Your task to perform on an android device: change the upload size in google photos Image 0: 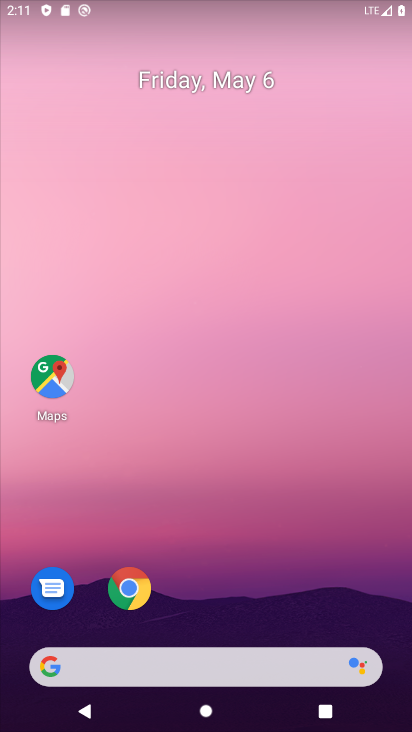
Step 0: drag from (319, 577) to (390, 60)
Your task to perform on an android device: change the upload size in google photos Image 1: 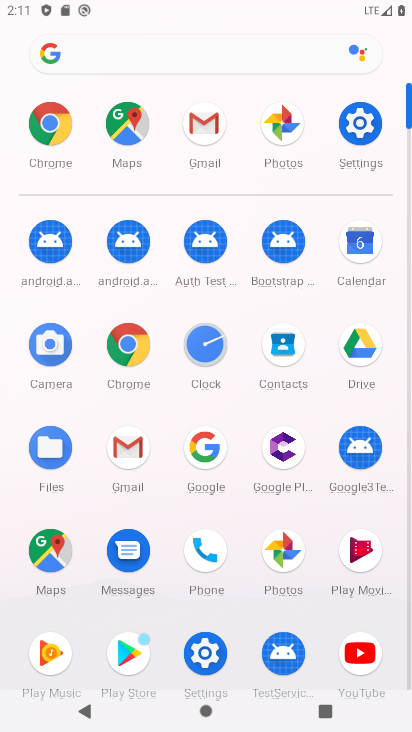
Step 1: click (272, 134)
Your task to perform on an android device: change the upload size in google photos Image 2: 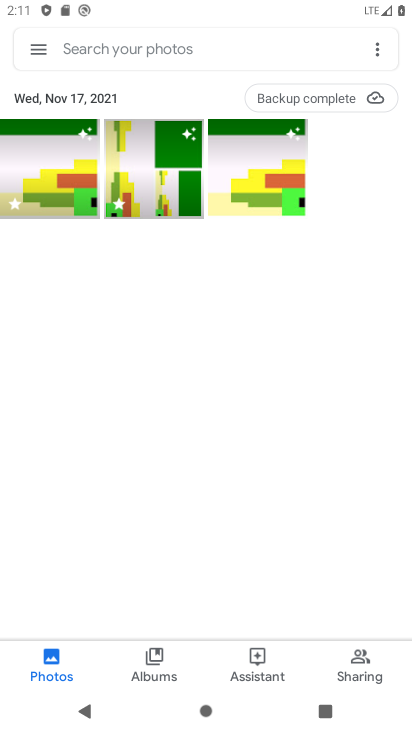
Step 2: click (43, 45)
Your task to perform on an android device: change the upload size in google photos Image 3: 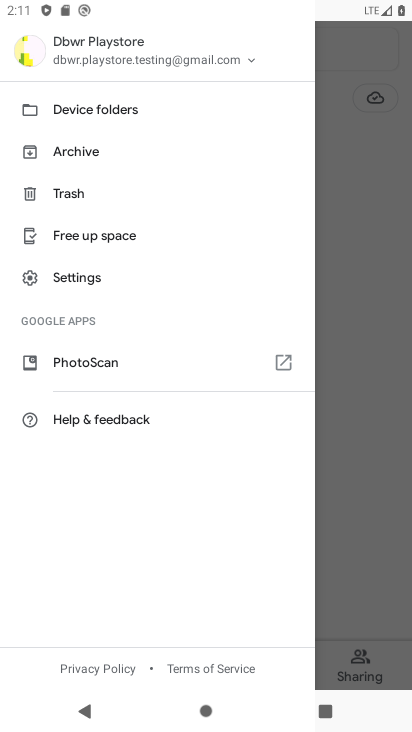
Step 3: click (91, 281)
Your task to perform on an android device: change the upload size in google photos Image 4: 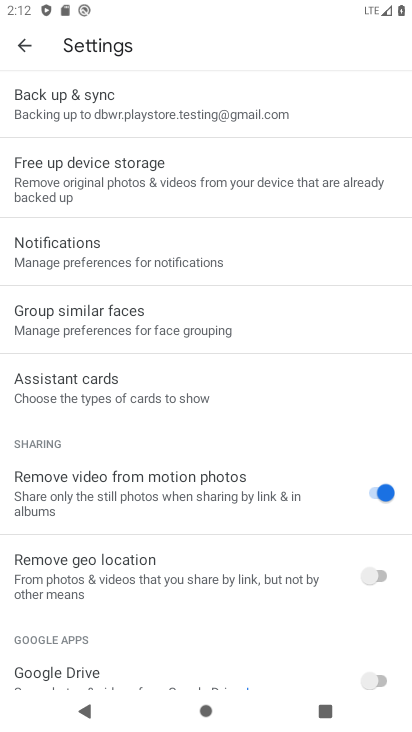
Step 4: click (67, 125)
Your task to perform on an android device: change the upload size in google photos Image 5: 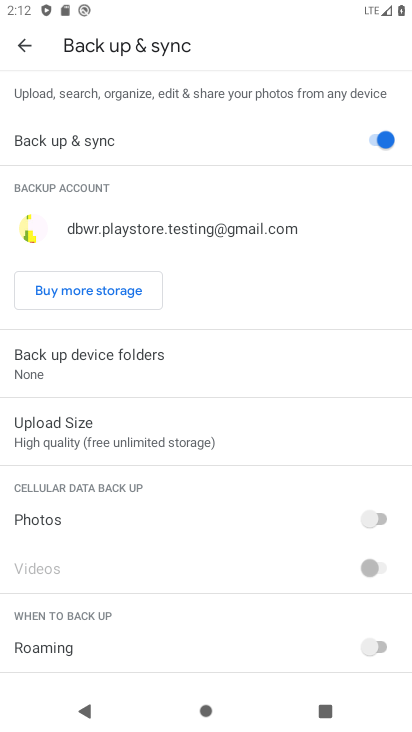
Step 5: click (51, 428)
Your task to perform on an android device: change the upload size in google photos Image 6: 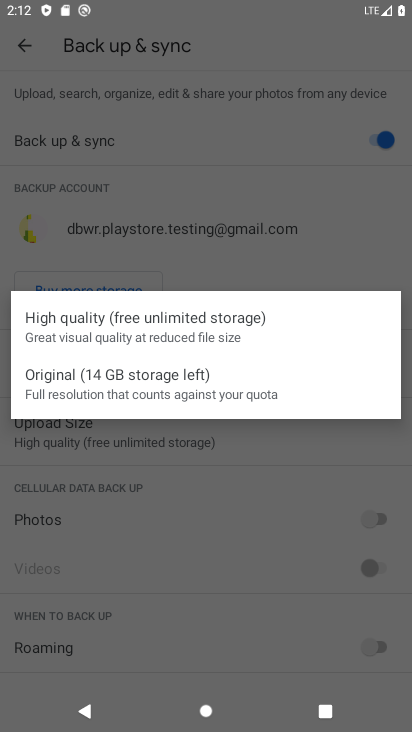
Step 6: click (45, 372)
Your task to perform on an android device: change the upload size in google photos Image 7: 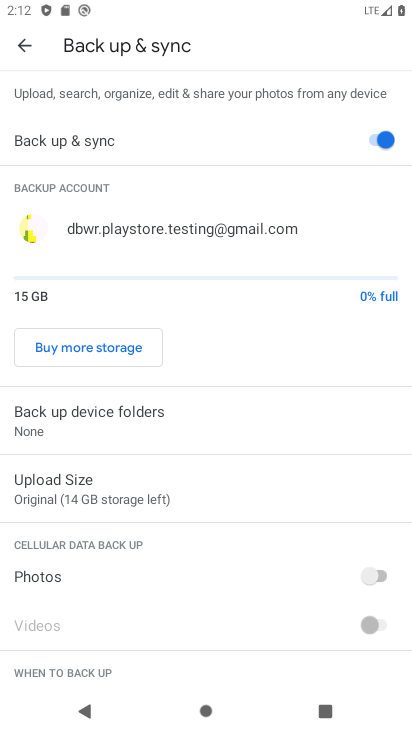
Step 7: task complete